Your task to perform on an android device: turn off notifications in google photos Image 0: 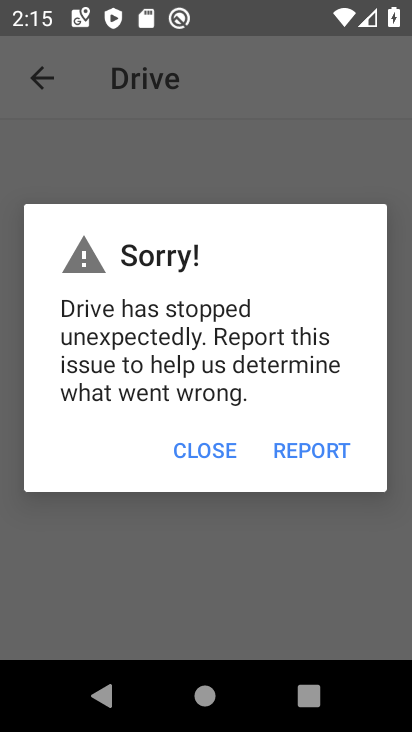
Step 0: press home button
Your task to perform on an android device: turn off notifications in google photos Image 1: 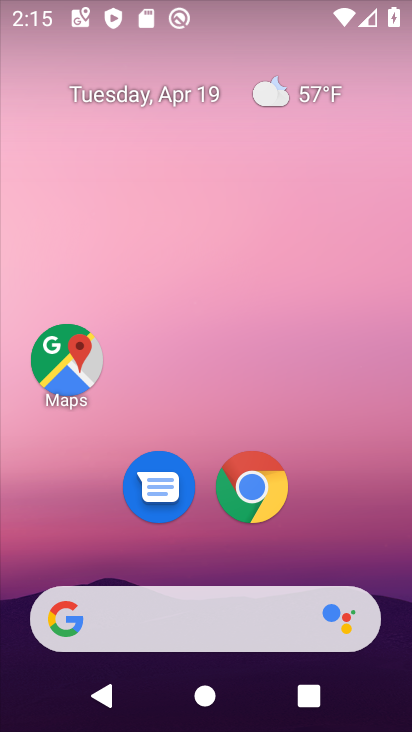
Step 1: drag from (235, 9) to (302, 678)
Your task to perform on an android device: turn off notifications in google photos Image 2: 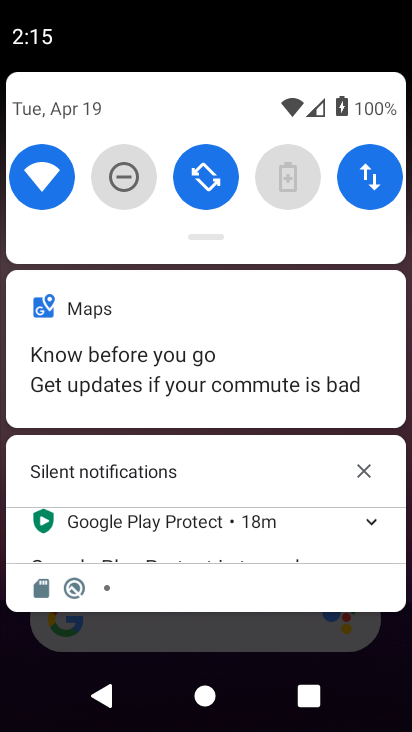
Step 2: drag from (239, 95) to (270, 500)
Your task to perform on an android device: turn off notifications in google photos Image 3: 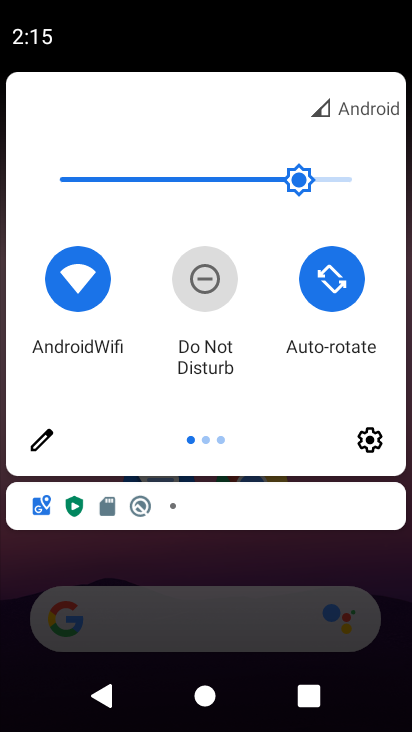
Step 3: click (381, 439)
Your task to perform on an android device: turn off notifications in google photos Image 4: 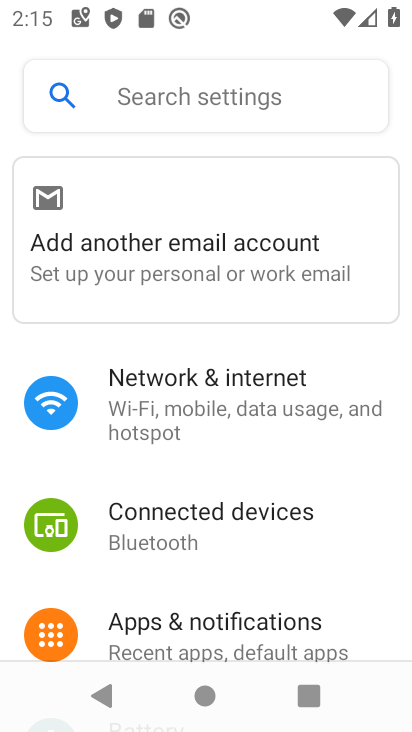
Step 4: click (131, 640)
Your task to perform on an android device: turn off notifications in google photos Image 5: 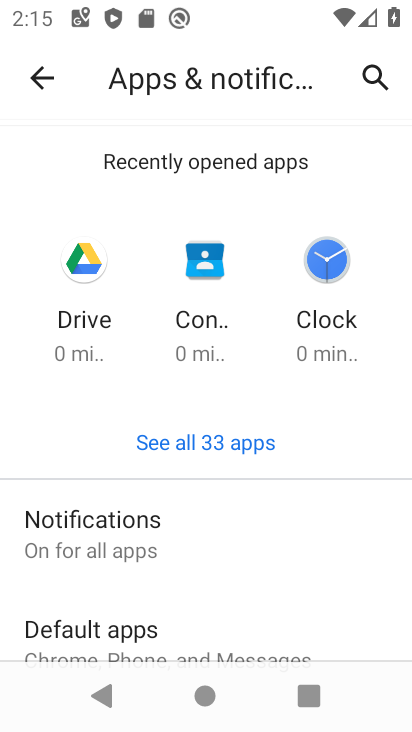
Step 5: click (208, 439)
Your task to perform on an android device: turn off notifications in google photos Image 6: 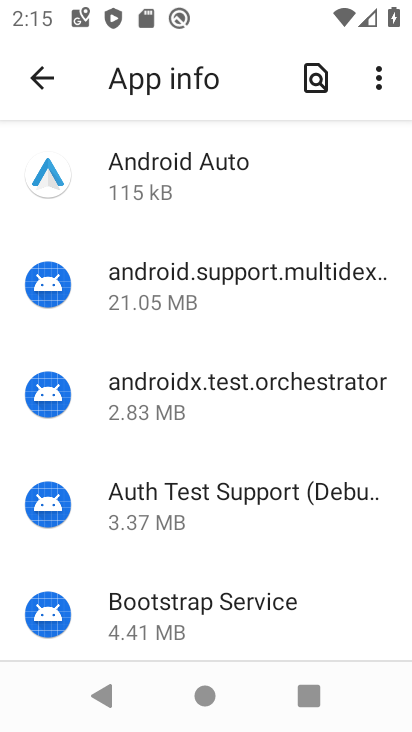
Step 6: drag from (177, 545) to (205, 26)
Your task to perform on an android device: turn off notifications in google photos Image 7: 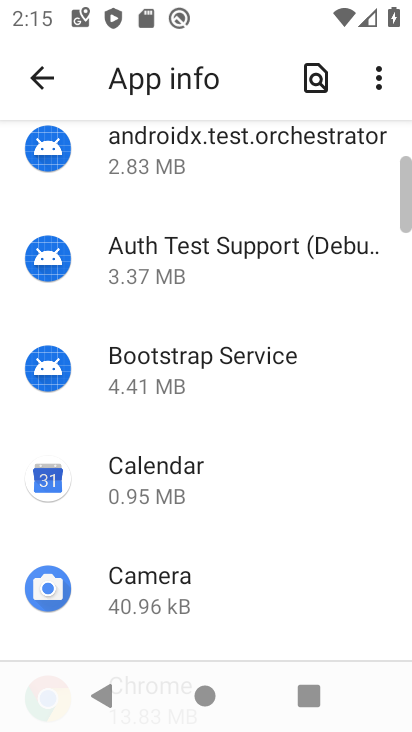
Step 7: drag from (64, 579) to (69, 80)
Your task to perform on an android device: turn off notifications in google photos Image 8: 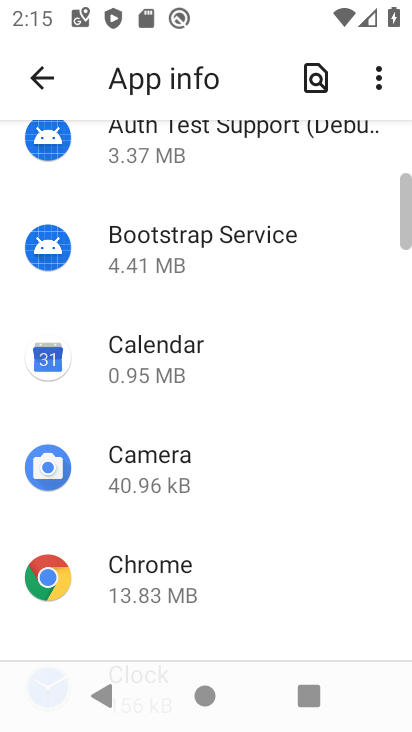
Step 8: drag from (132, 476) to (189, 93)
Your task to perform on an android device: turn off notifications in google photos Image 9: 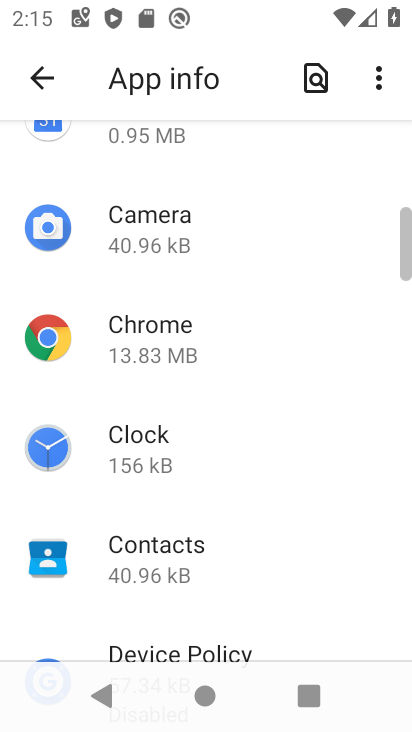
Step 9: drag from (151, 606) to (196, 191)
Your task to perform on an android device: turn off notifications in google photos Image 10: 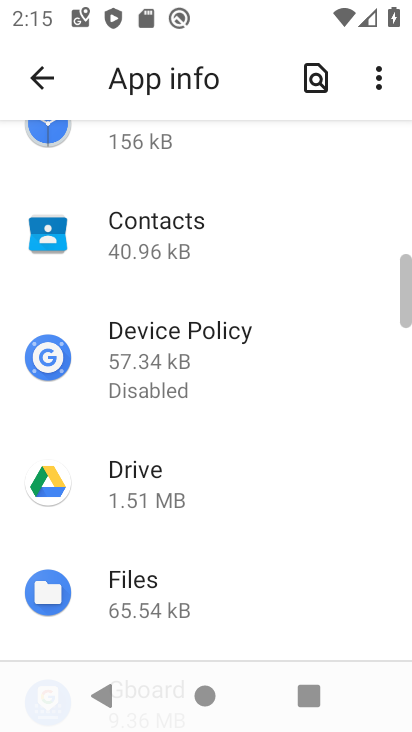
Step 10: drag from (61, 608) to (140, 40)
Your task to perform on an android device: turn off notifications in google photos Image 11: 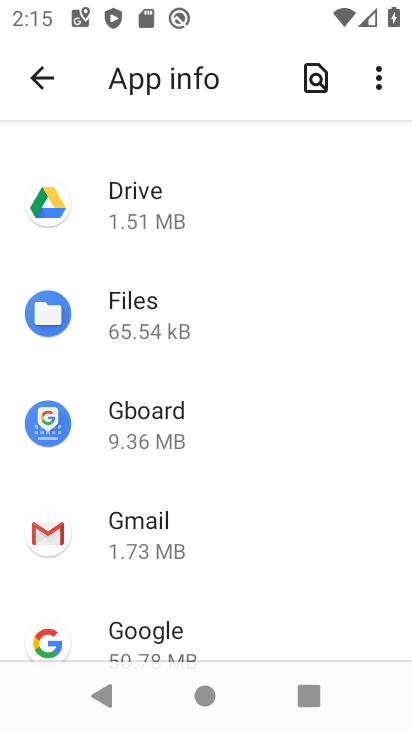
Step 11: drag from (173, 589) to (204, 66)
Your task to perform on an android device: turn off notifications in google photos Image 12: 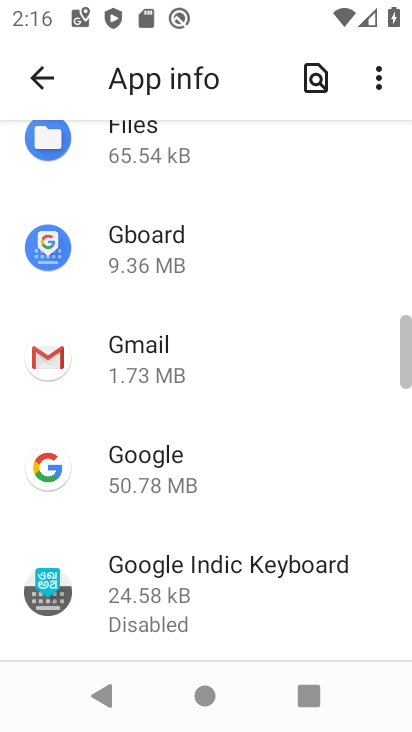
Step 12: drag from (126, 528) to (190, 45)
Your task to perform on an android device: turn off notifications in google photos Image 13: 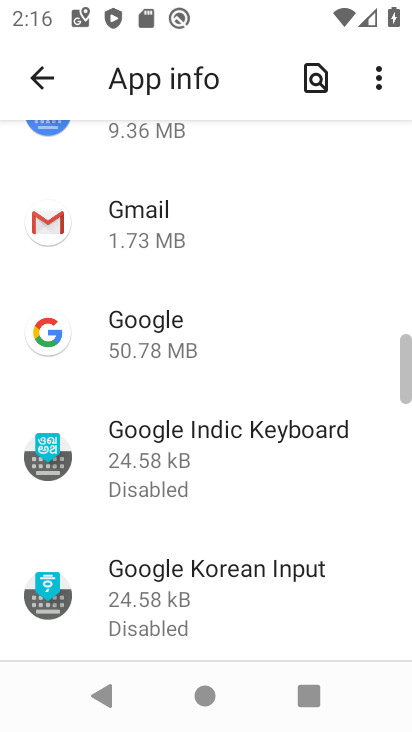
Step 13: drag from (132, 574) to (189, 44)
Your task to perform on an android device: turn off notifications in google photos Image 14: 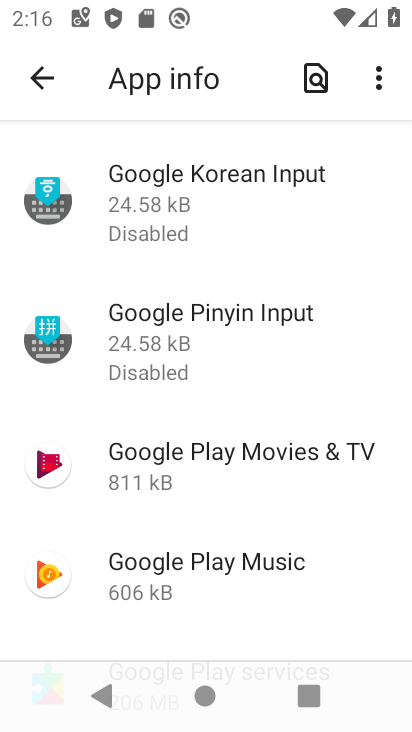
Step 14: drag from (105, 625) to (182, 112)
Your task to perform on an android device: turn off notifications in google photos Image 15: 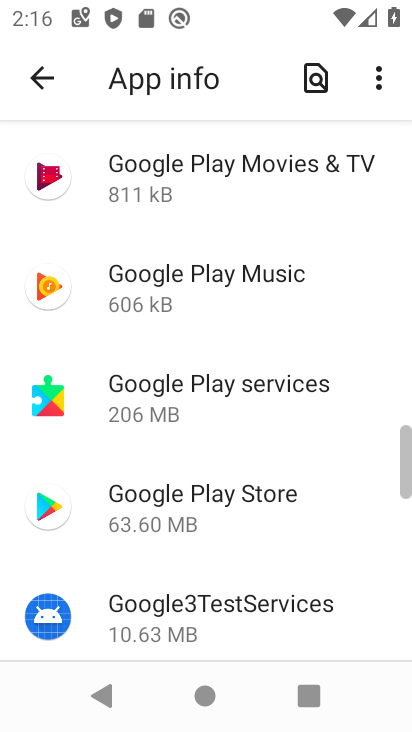
Step 15: drag from (144, 546) to (180, 84)
Your task to perform on an android device: turn off notifications in google photos Image 16: 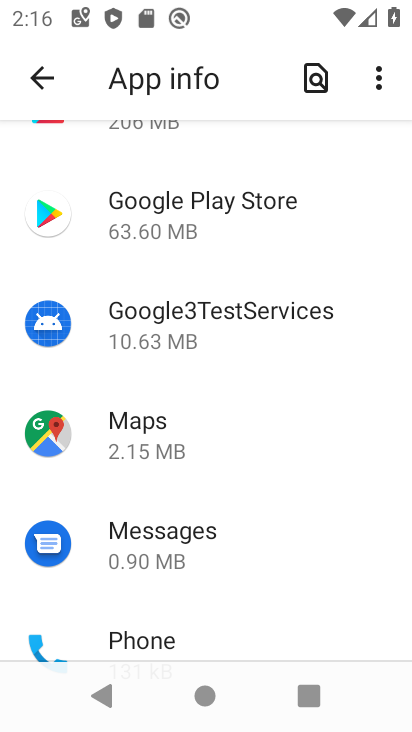
Step 16: drag from (176, 585) to (194, 75)
Your task to perform on an android device: turn off notifications in google photos Image 17: 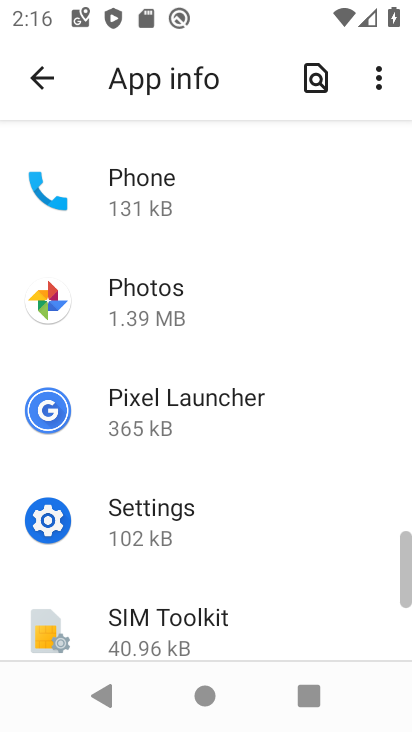
Step 17: click (189, 328)
Your task to perform on an android device: turn off notifications in google photos Image 18: 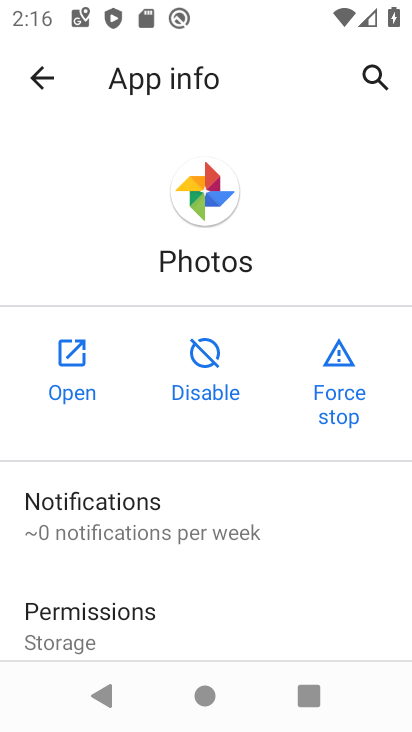
Step 18: click (159, 535)
Your task to perform on an android device: turn off notifications in google photos Image 19: 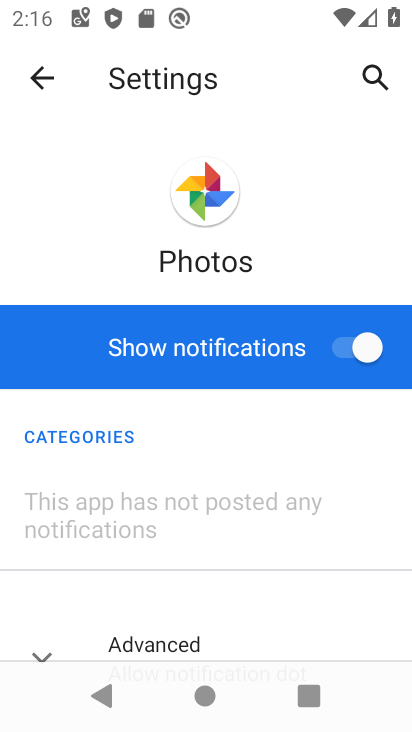
Step 19: click (337, 345)
Your task to perform on an android device: turn off notifications in google photos Image 20: 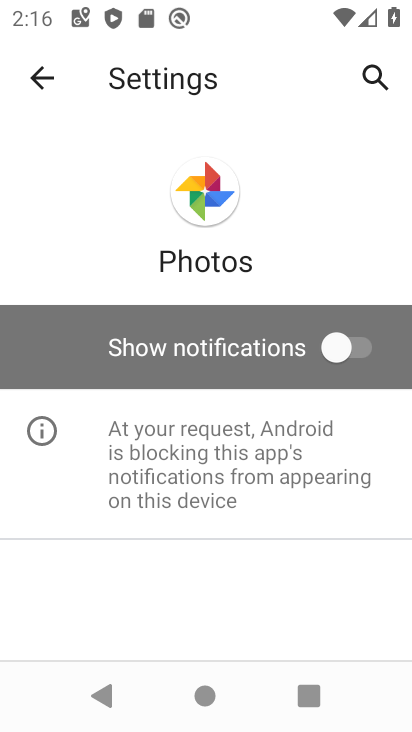
Step 20: task complete